Your task to perform on an android device: change alarm snooze length Image 0: 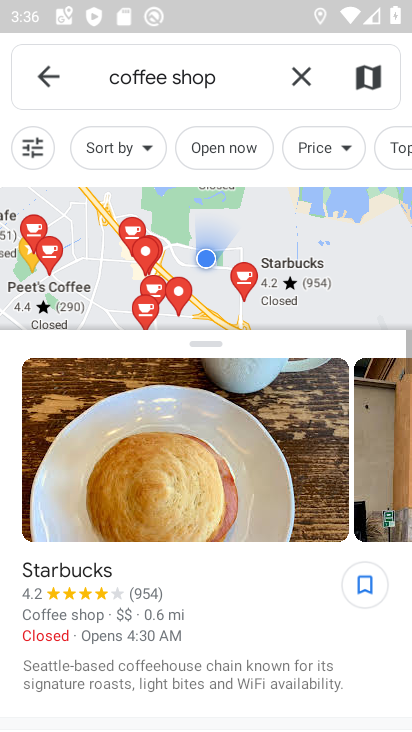
Step 0: click (132, 271)
Your task to perform on an android device: change alarm snooze length Image 1: 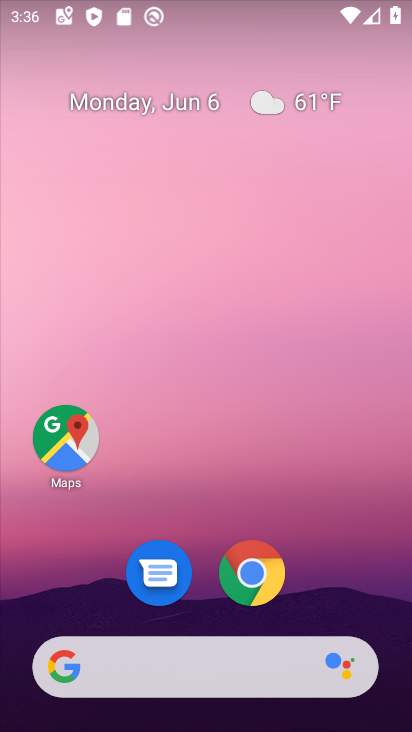
Step 1: drag from (207, 615) to (207, 156)
Your task to perform on an android device: change alarm snooze length Image 2: 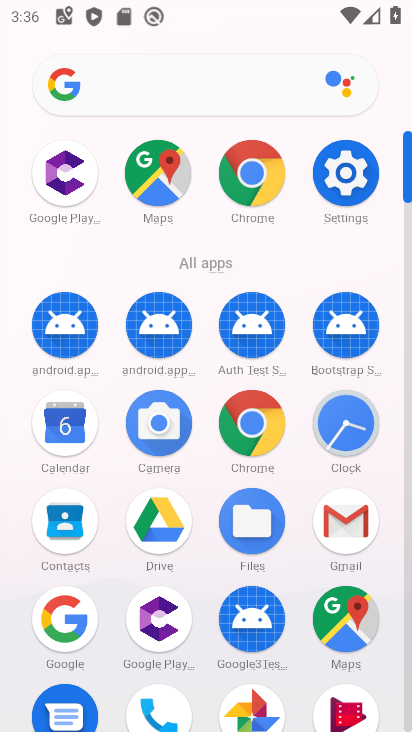
Step 2: click (371, 174)
Your task to perform on an android device: change alarm snooze length Image 3: 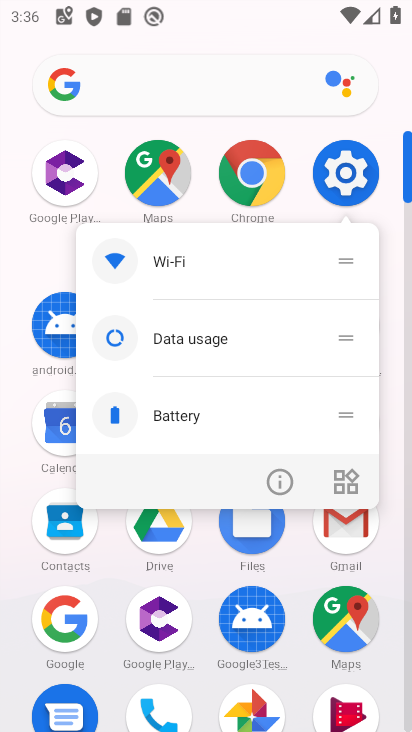
Step 3: click (347, 192)
Your task to perform on an android device: change alarm snooze length Image 4: 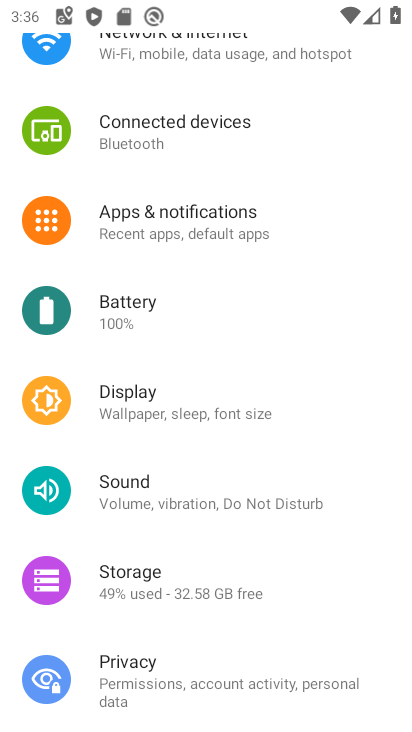
Step 4: click (116, 396)
Your task to perform on an android device: change alarm snooze length Image 5: 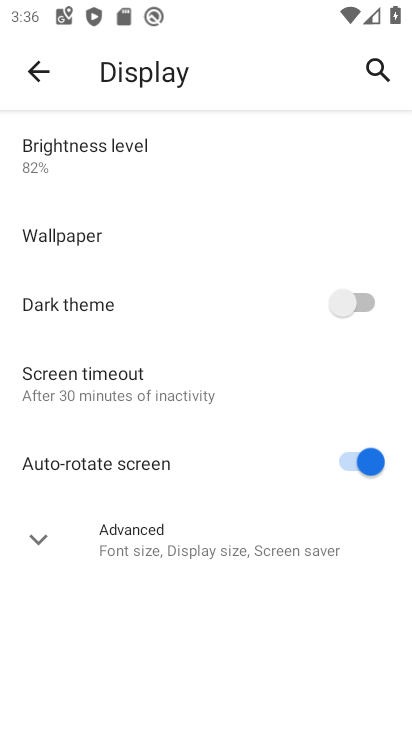
Step 5: click (136, 536)
Your task to perform on an android device: change alarm snooze length Image 6: 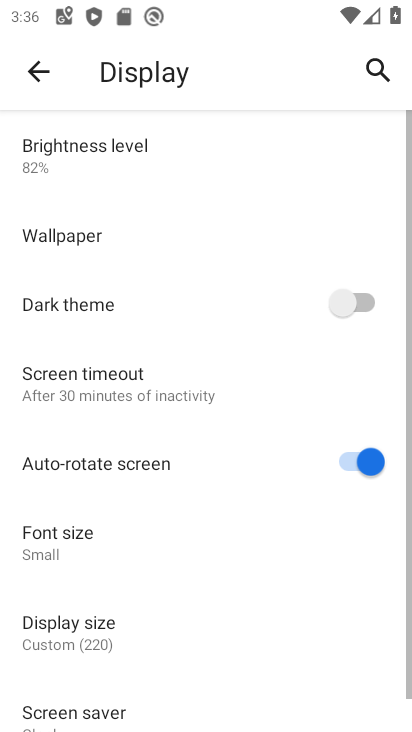
Step 6: task complete